Your task to perform on an android device: Empty the shopping cart on newegg.com. Image 0: 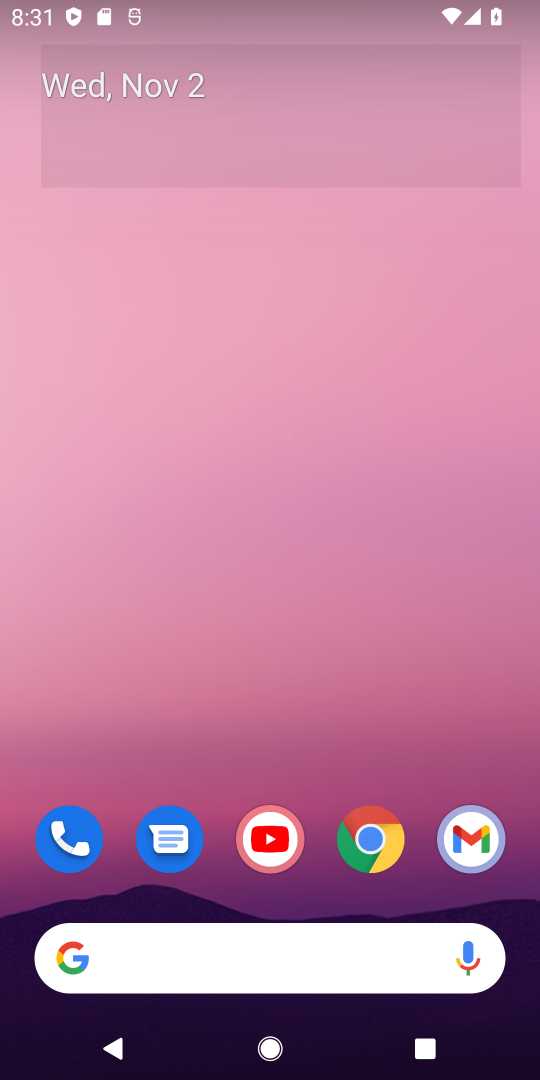
Step 0: click (372, 843)
Your task to perform on an android device: Empty the shopping cart on newegg.com. Image 1: 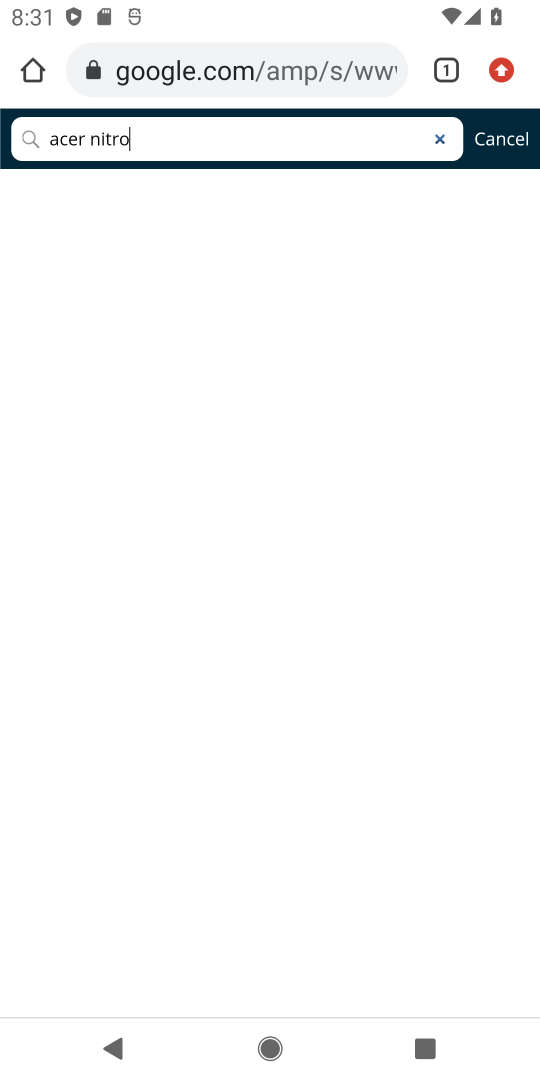
Step 1: click (296, 81)
Your task to perform on an android device: Empty the shopping cart on newegg.com. Image 2: 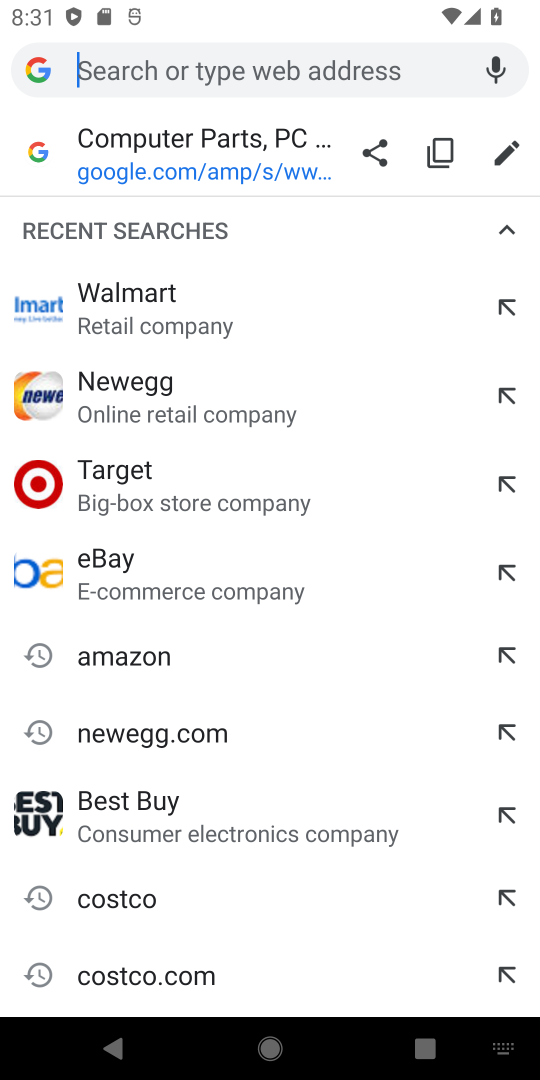
Step 2: type "newegg.com"
Your task to perform on an android device: Empty the shopping cart on newegg.com. Image 3: 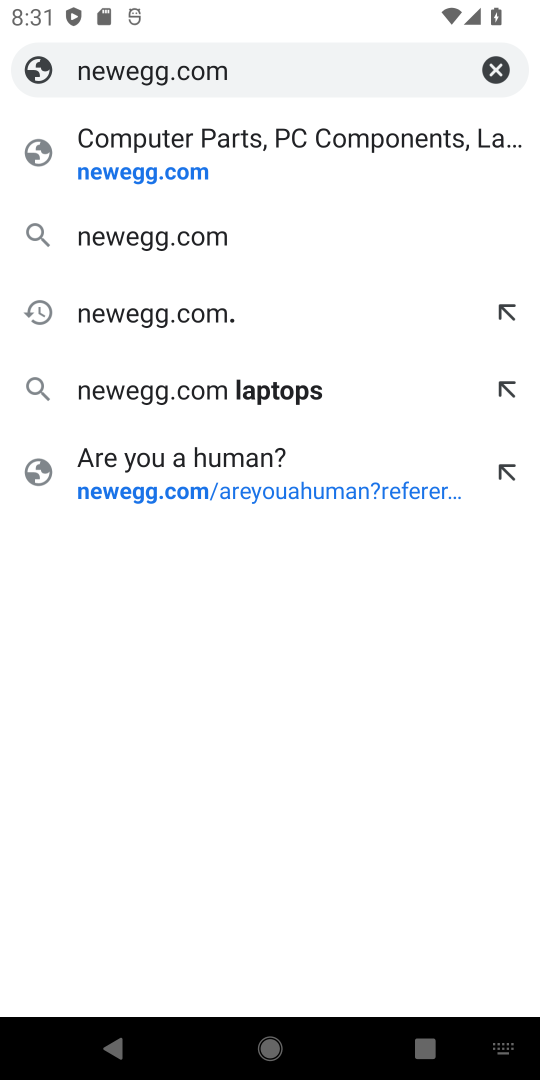
Step 3: click (150, 240)
Your task to perform on an android device: Empty the shopping cart on newegg.com. Image 4: 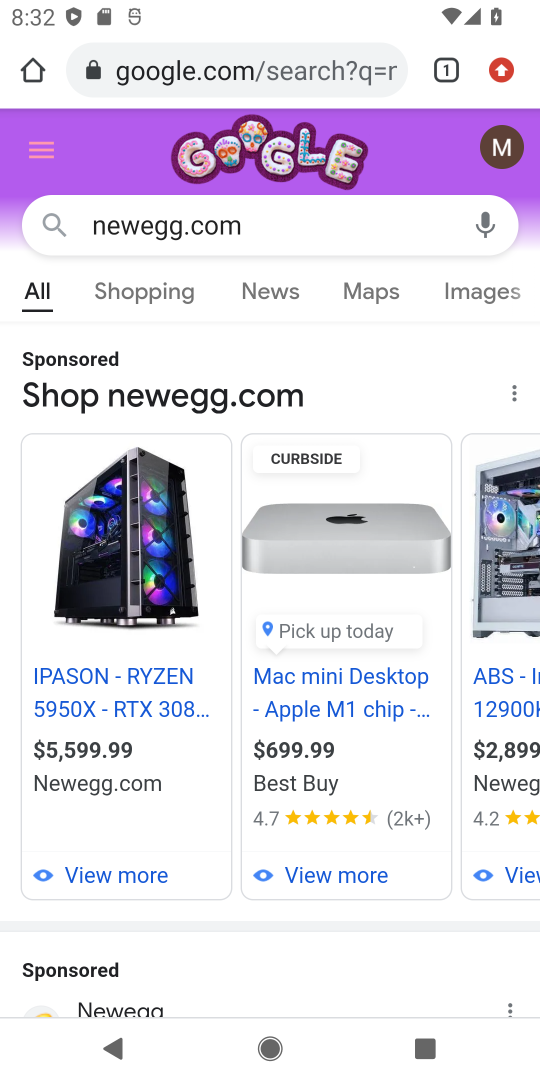
Step 4: drag from (333, 962) to (402, 374)
Your task to perform on an android device: Empty the shopping cart on newegg.com. Image 5: 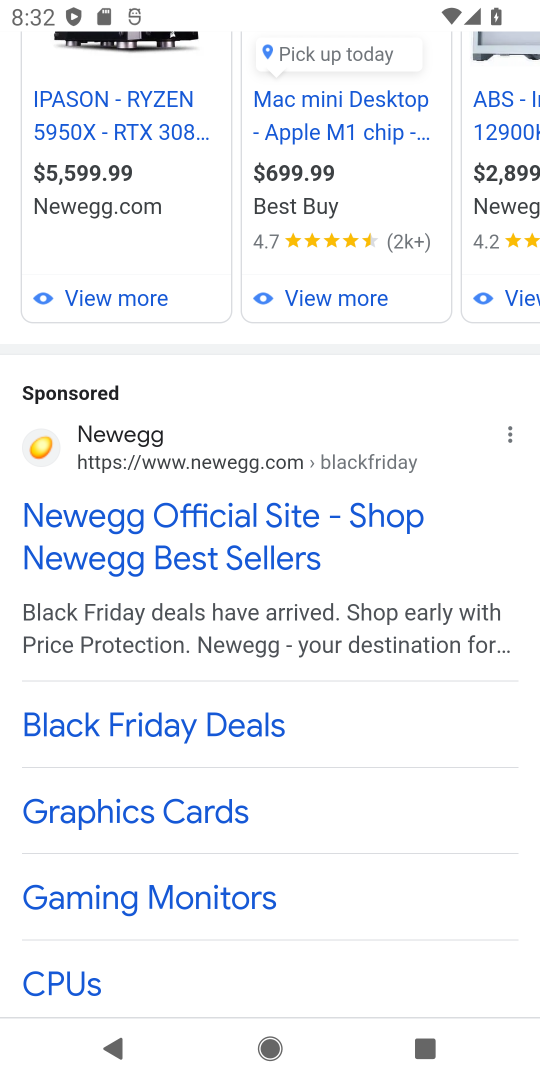
Step 5: drag from (349, 913) to (385, 348)
Your task to perform on an android device: Empty the shopping cart on newegg.com. Image 6: 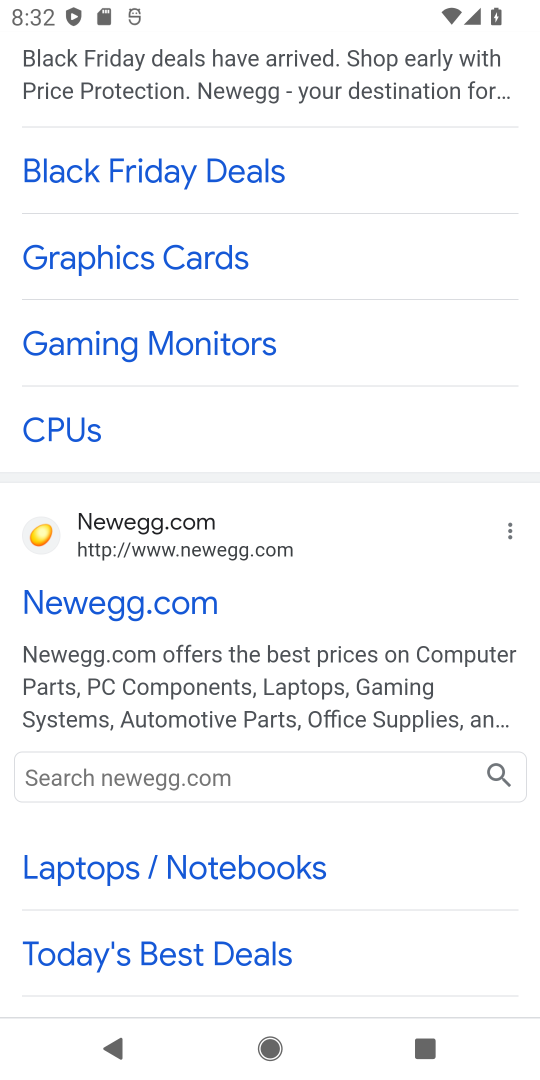
Step 6: click (227, 597)
Your task to perform on an android device: Empty the shopping cart on newegg.com. Image 7: 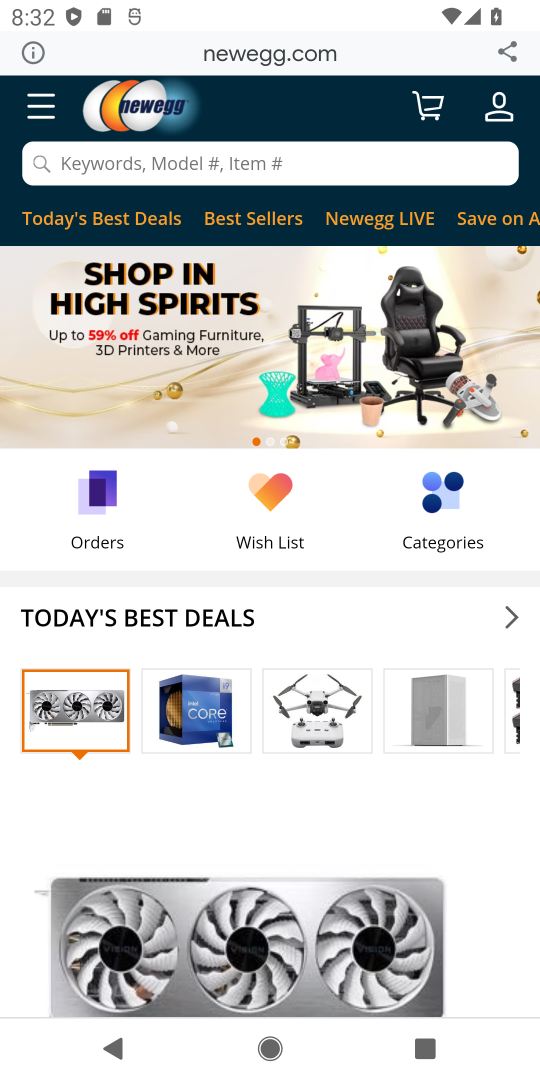
Step 7: click (430, 99)
Your task to perform on an android device: Empty the shopping cart on newegg.com. Image 8: 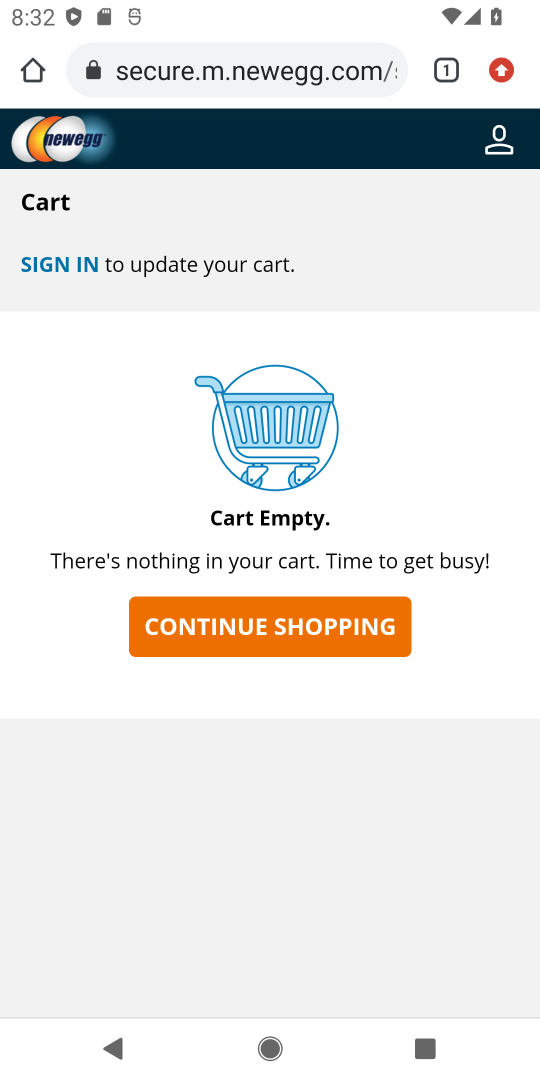
Step 8: task complete